Your task to perform on an android device: toggle airplane mode Image 0: 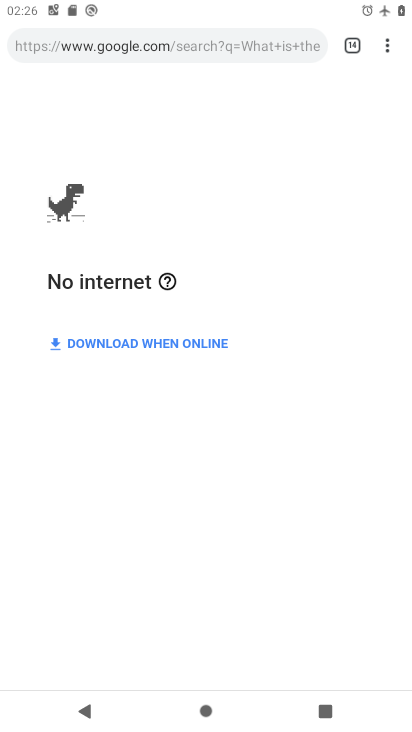
Step 0: press home button
Your task to perform on an android device: toggle airplane mode Image 1: 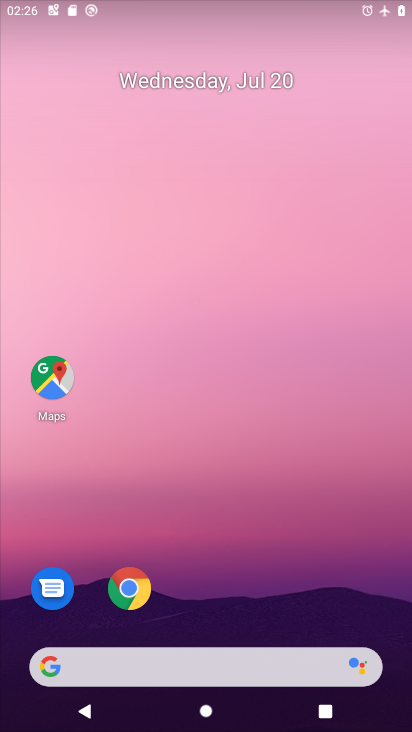
Step 1: drag from (198, 626) to (223, 550)
Your task to perform on an android device: toggle airplane mode Image 2: 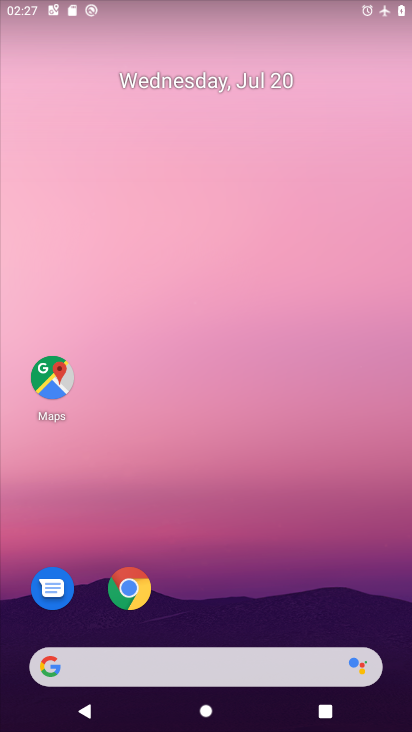
Step 2: drag from (244, 560) to (293, 247)
Your task to perform on an android device: toggle airplane mode Image 3: 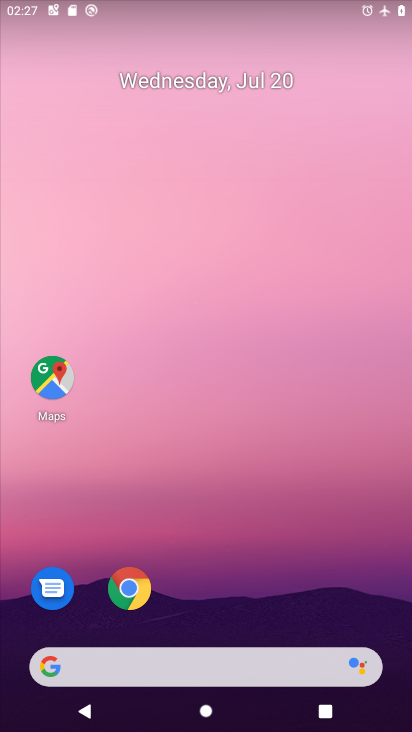
Step 3: drag from (247, 588) to (249, 215)
Your task to perform on an android device: toggle airplane mode Image 4: 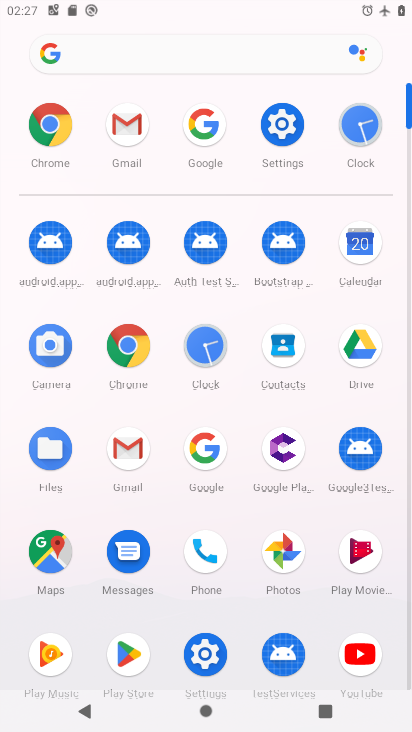
Step 4: click (289, 113)
Your task to perform on an android device: toggle airplane mode Image 5: 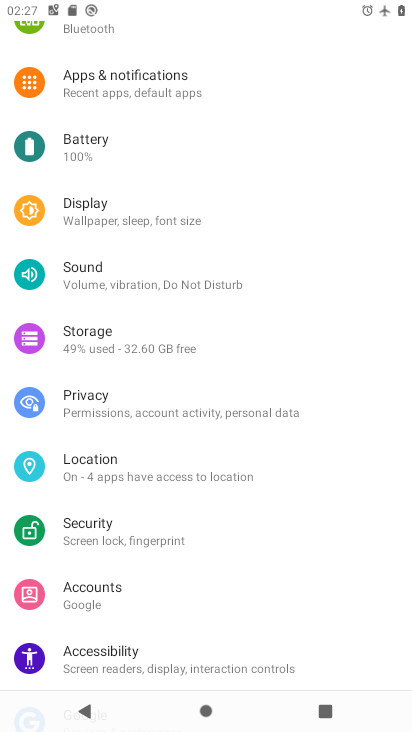
Step 5: drag from (91, 104) to (81, 407)
Your task to perform on an android device: toggle airplane mode Image 6: 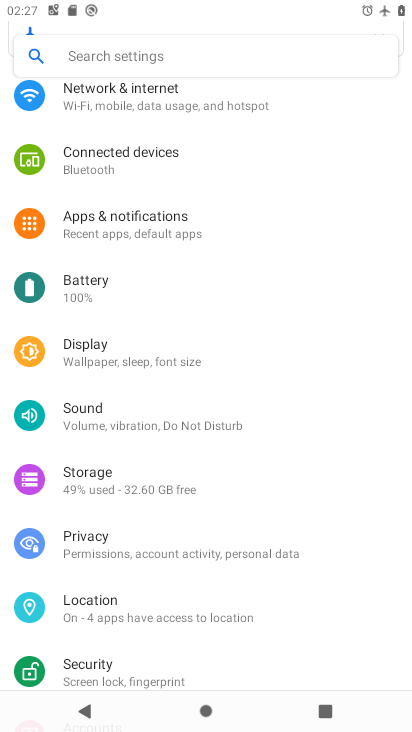
Step 6: drag from (186, 115) to (184, 476)
Your task to perform on an android device: toggle airplane mode Image 7: 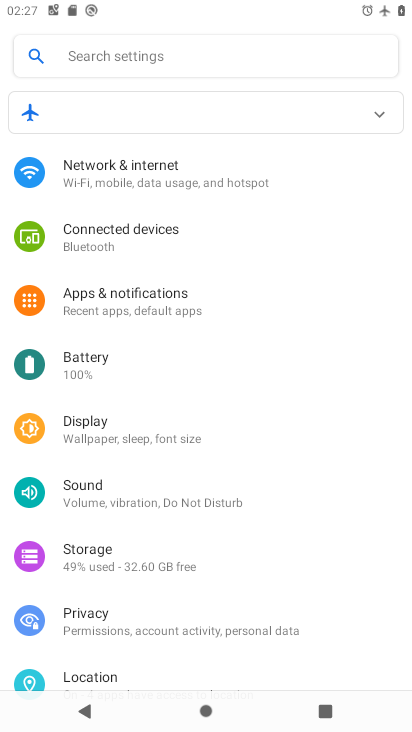
Step 7: click (164, 177)
Your task to perform on an android device: toggle airplane mode Image 8: 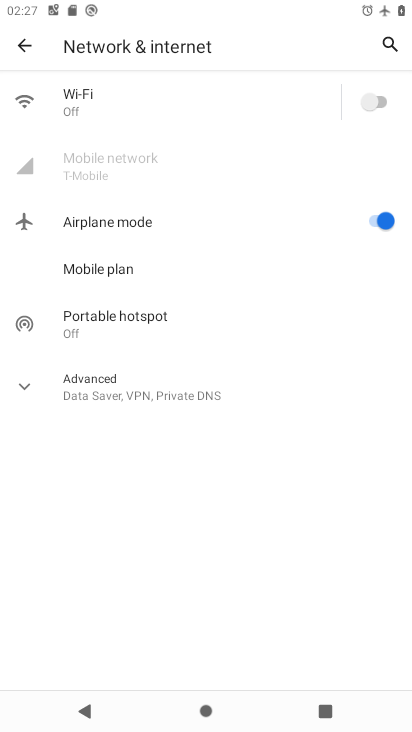
Step 8: click (368, 219)
Your task to perform on an android device: toggle airplane mode Image 9: 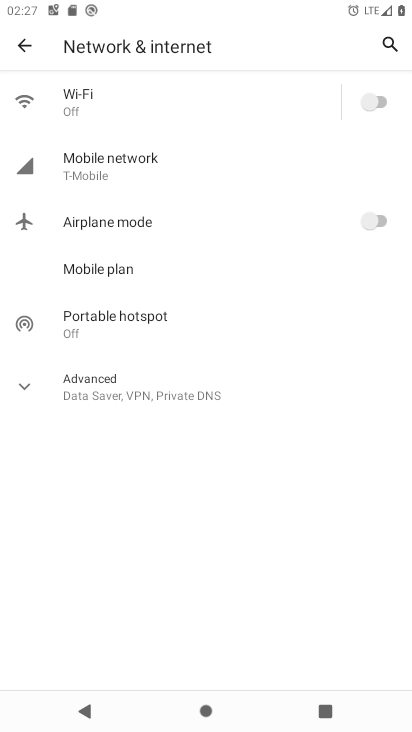
Step 9: task complete